Your task to perform on an android device: move a message to another label in the gmail app Image 0: 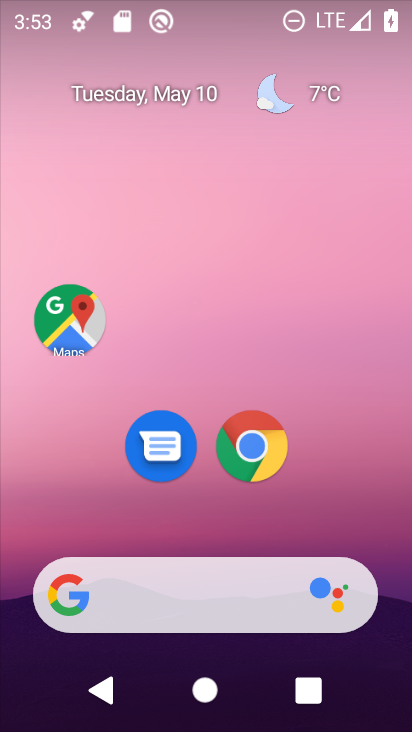
Step 0: drag from (305, 494) to (270, 73)
Your task to perform on an android device: move a message to another label in the gmail app Image 1: 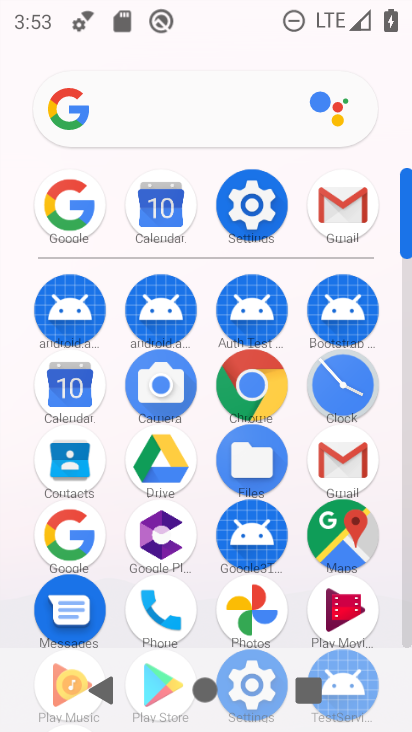
Step 1: click (352, 463)
Your task to perform on an android device: move a message to another label in the gmail app Image 2: 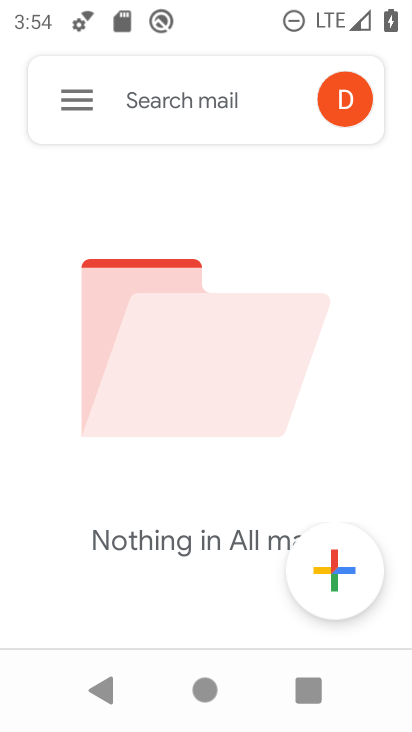
Step 2: click (64, 110)
Your task to perform on an android device: move a message to another label in the gmail app Image 3: 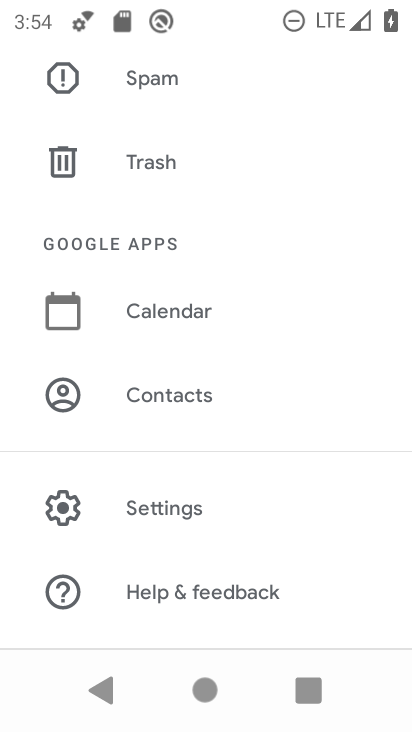
Step 3: drag from (213, 208) to (226, 537)
Your task to perform on an android device: move a message to another label in the gmail app Image 4: 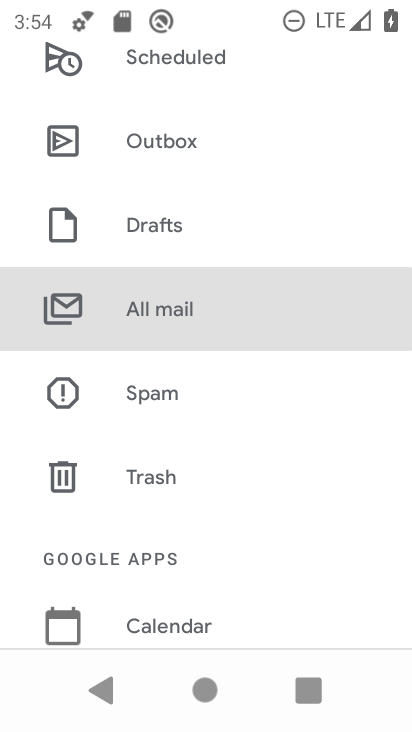
Step 4: click (222, 305)
Your task to perform on an android device: move a message to another label in the gmail app Image 5: 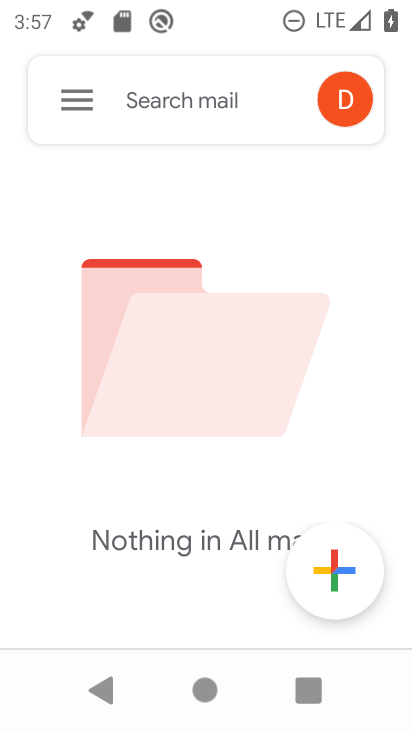
Step 5: task complete